Your task to perform on an android device: manage bookmarks in the chrome app Image 0: 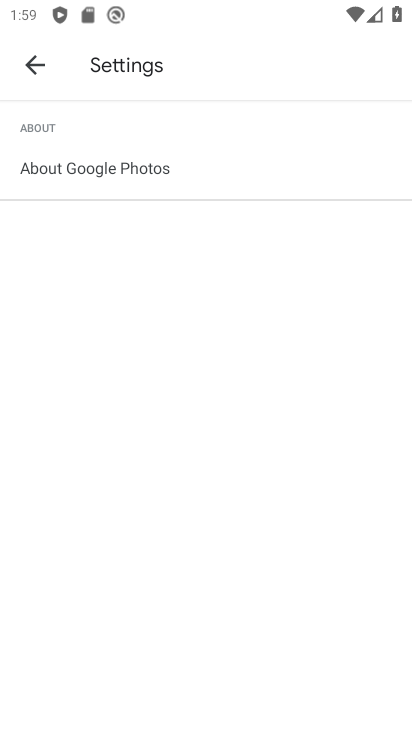
Step 0: press home button
Your task to perform on an android device: manage bookmarks in the chrome app Image 1: 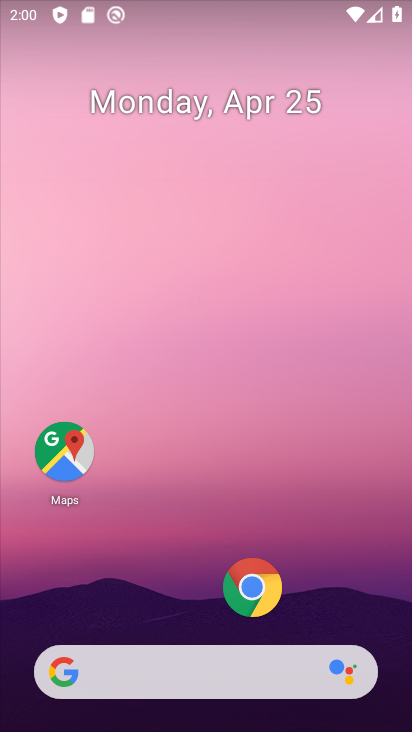
Step 1: drag from (193, 574) to (212, 10)
Your task to perform on an android device: manage bookmarks in the chrome app Image 2: 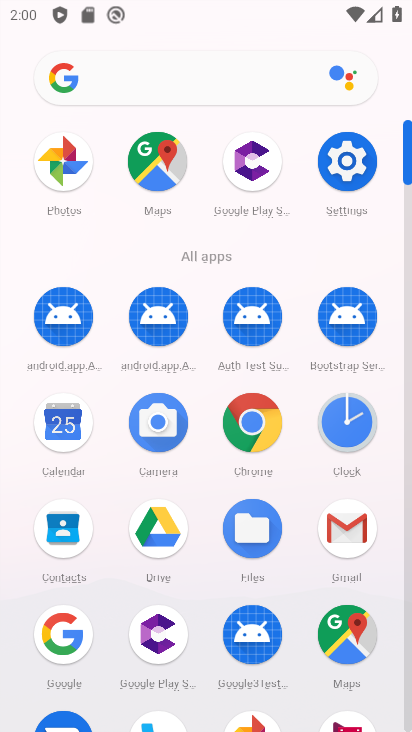
Step 2: click (253, 423)
Your task to perform on an android device: manage bookmarks in the chrome app Image 3: 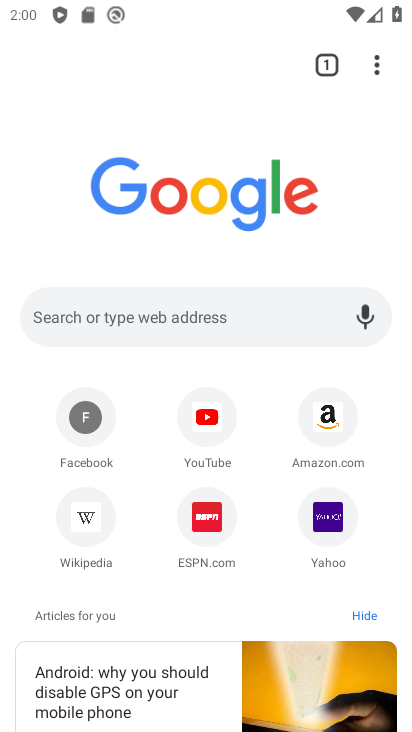
Step 3: click (374, 68)
Your task to perform on an android device: manage bookmarks in the chrome app Image 4: 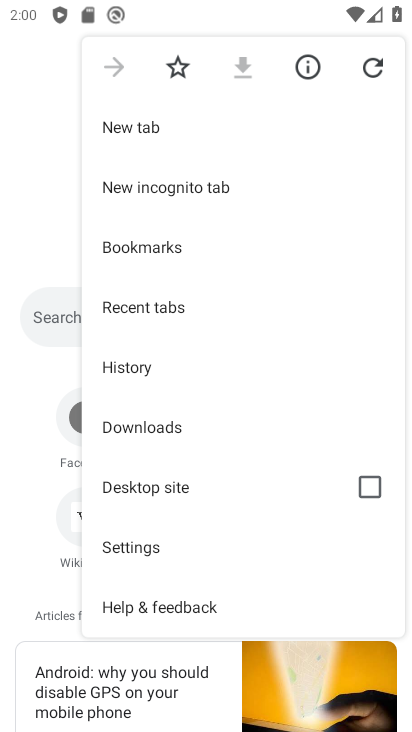
Step 4: click (194, 242)
Your task to perform on an android device: manage bookmarks in the chrome app Image 5: 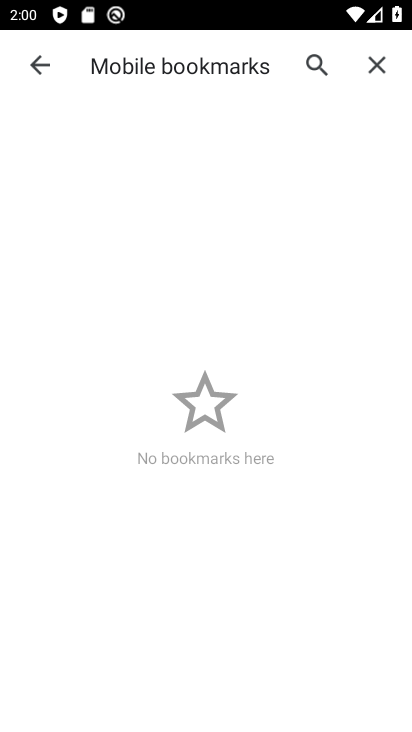
Step 5: task complete